Your task to perform on an android device: Open the stopwatch Image 0: 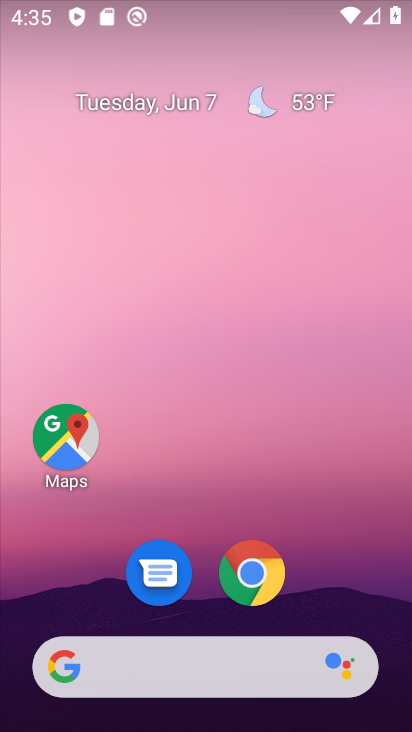
Step 0: drag from (239, 625) to (199, 248)
Your task to perform on an android device: Open the stopwatch Image 1: 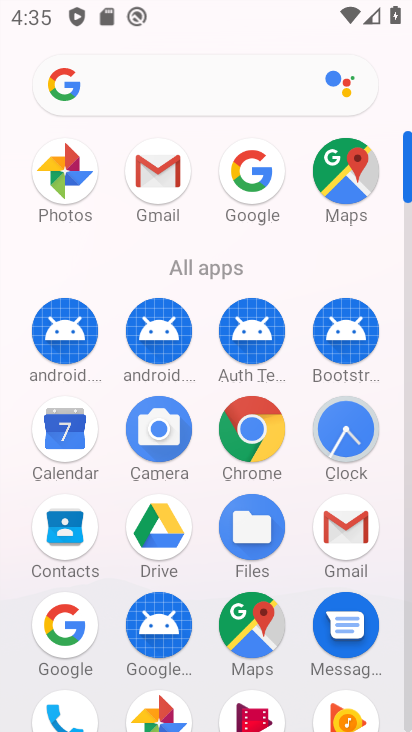
Step 1: click (347, 430)
Your task to perform on an android device: Open the stopwatch Image 2: 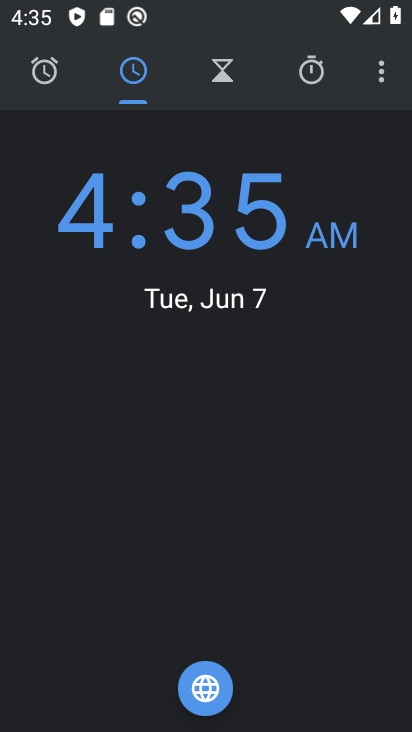
Step 2: click (309, 89)
Your task to perform on an android device: Open the stopwatch Image 3: 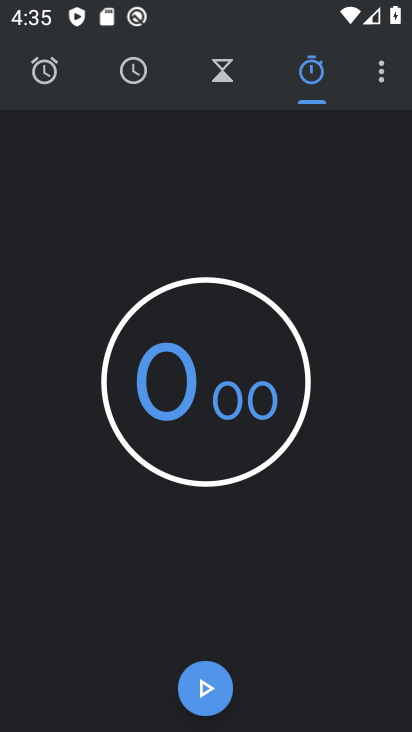
Step 3: task complete